Your task to perform on an android device: Open Chrome and go to settings Image 0: 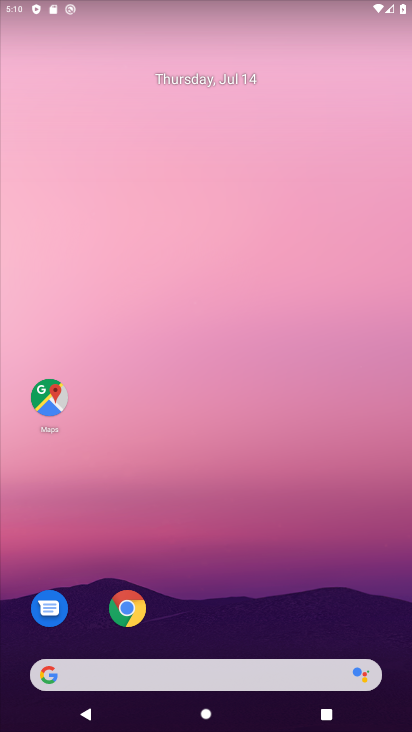
Step 0: click (127, 608)
Your task to perform on an android device: Open Chrome and go to settings Image 1: 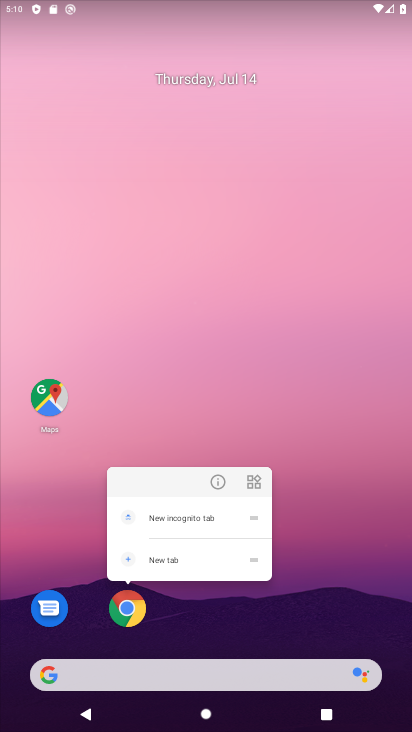
Step 1: click (130, 612)
Your task to perform on an android device: Open Chrome and go to settings Image 2: 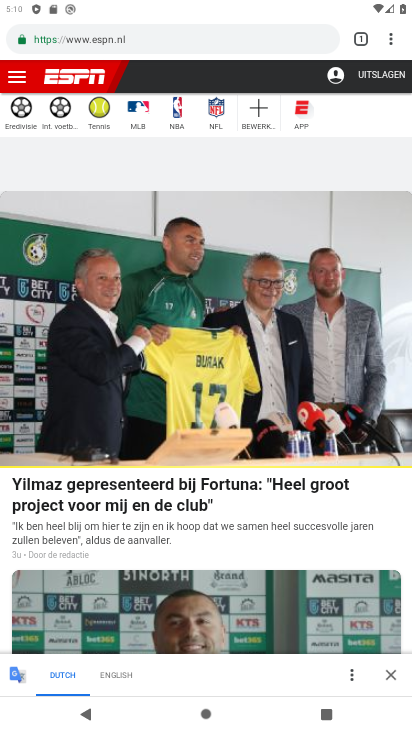
Step 2: click (391, 39)
Your task to perform on an android device: Open Chrome and go to settings Image 3: 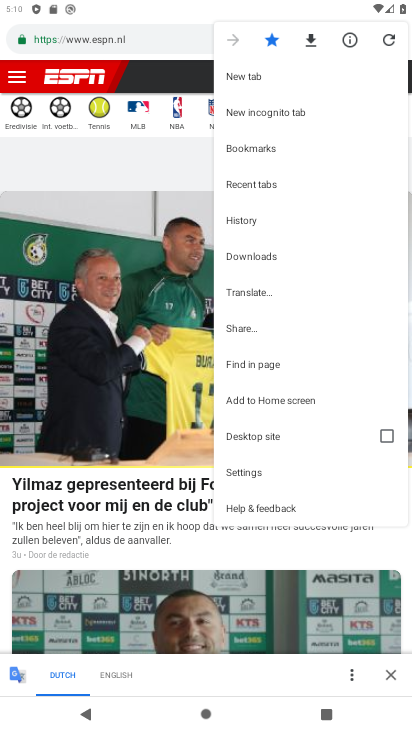
Step 3: click (252, 473)
Your task to perform on an android device: Open Chrome and go to settings Image 4: 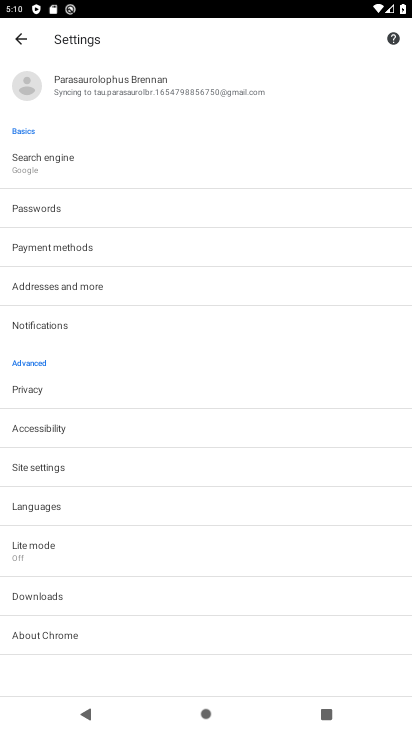
Step 4: task complete